Your task to perform on an android device: Check the news Image 0: 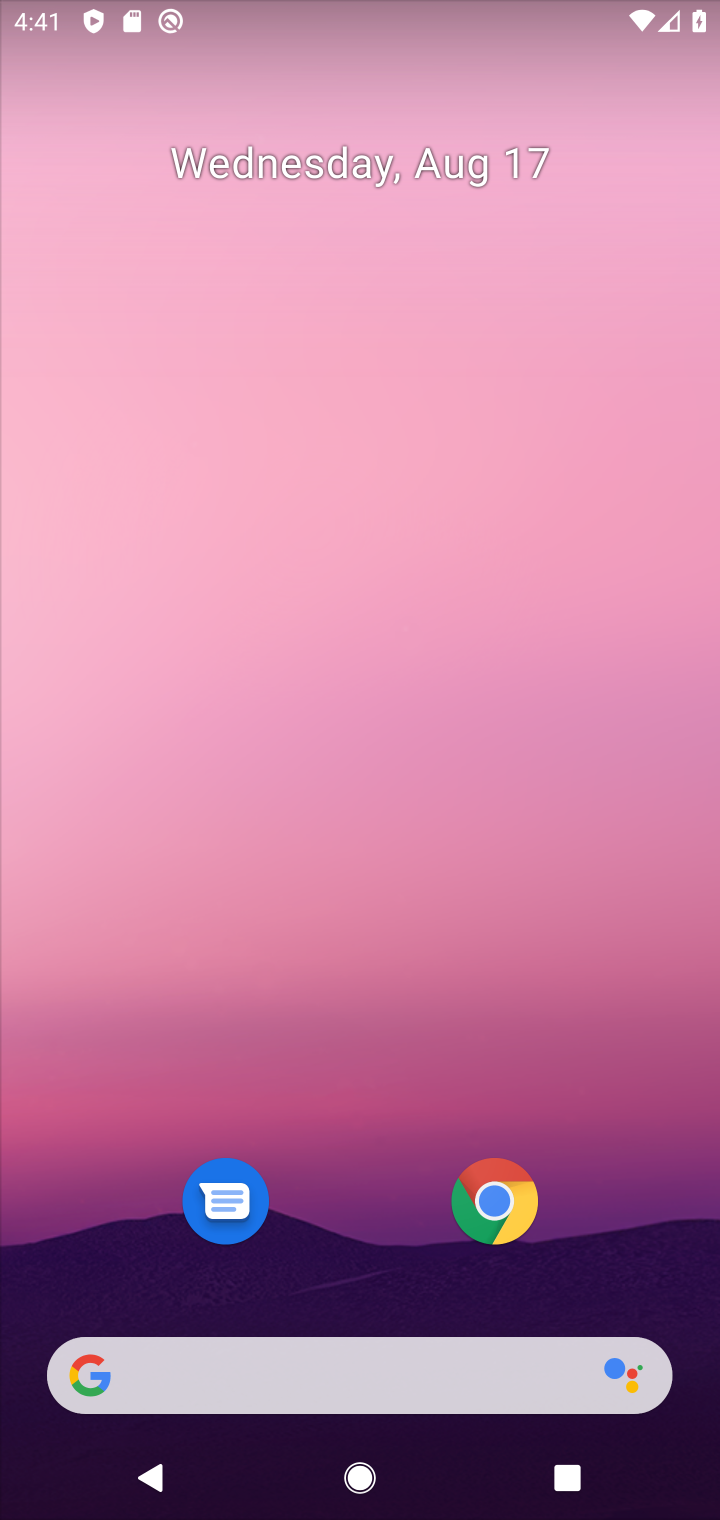
Step 0: click (86, 1369)
Your task to perform on an android device: Check the news Image 1: 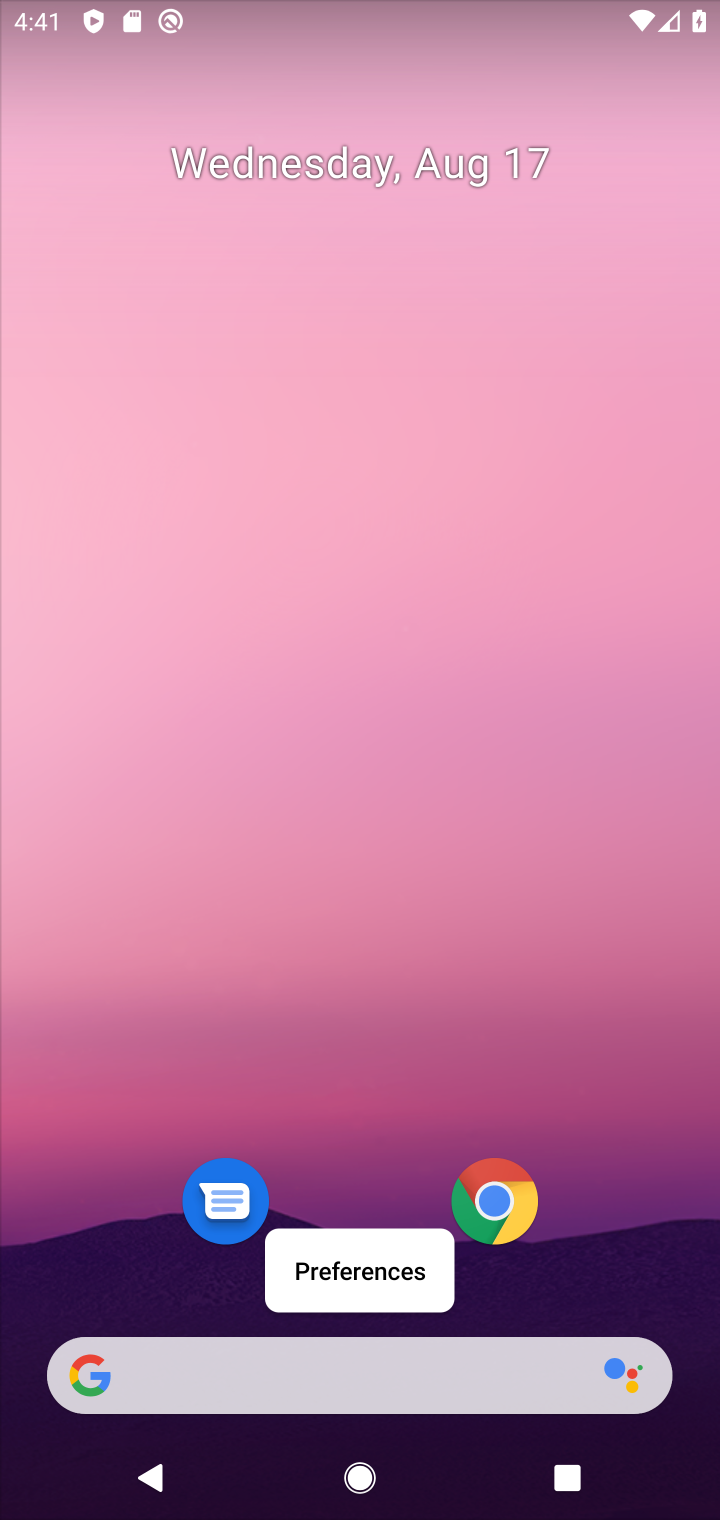
Step 1: click (81, 1389)
Your task to perform on an android device: Check the news Image 2: 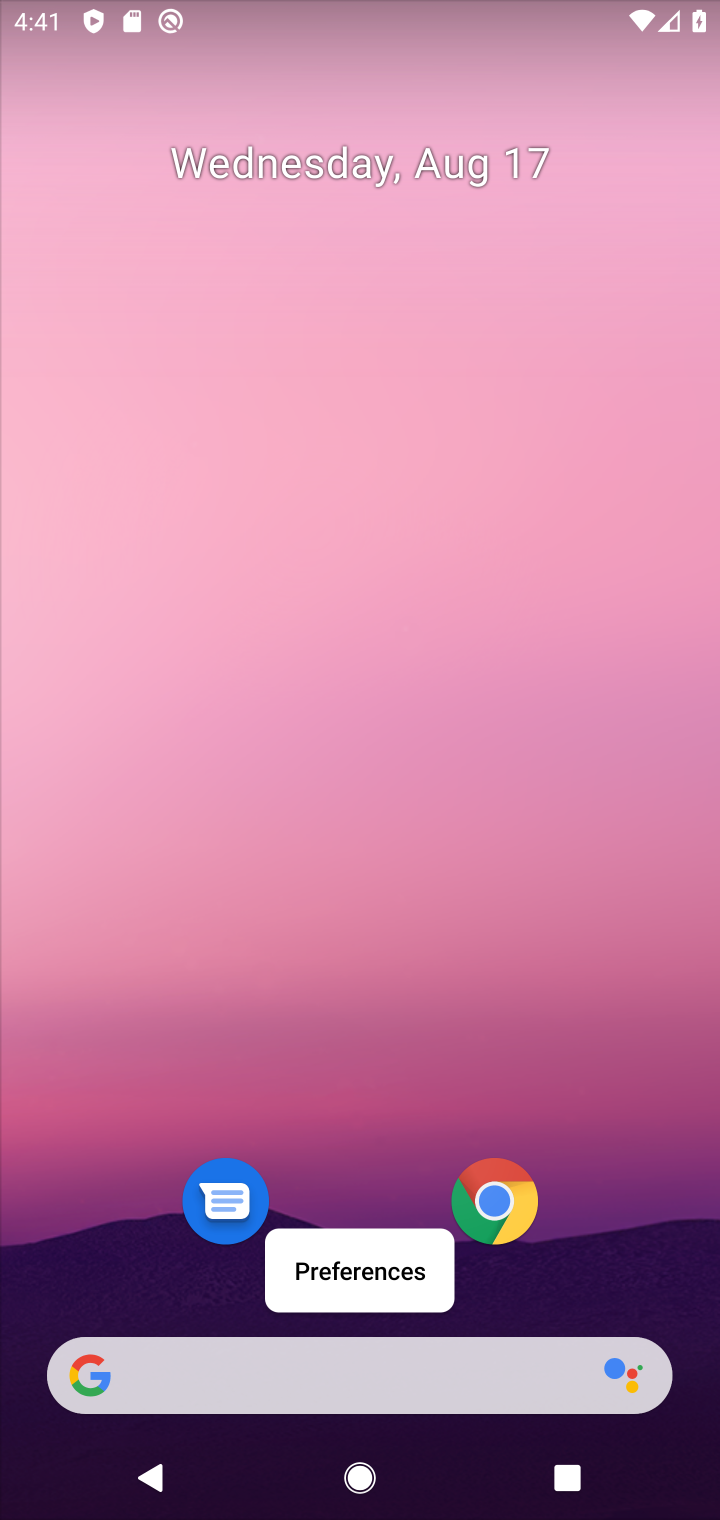
Step 2: click (95, 1374)
Your task to perform on an android device: Check the news Image 3: 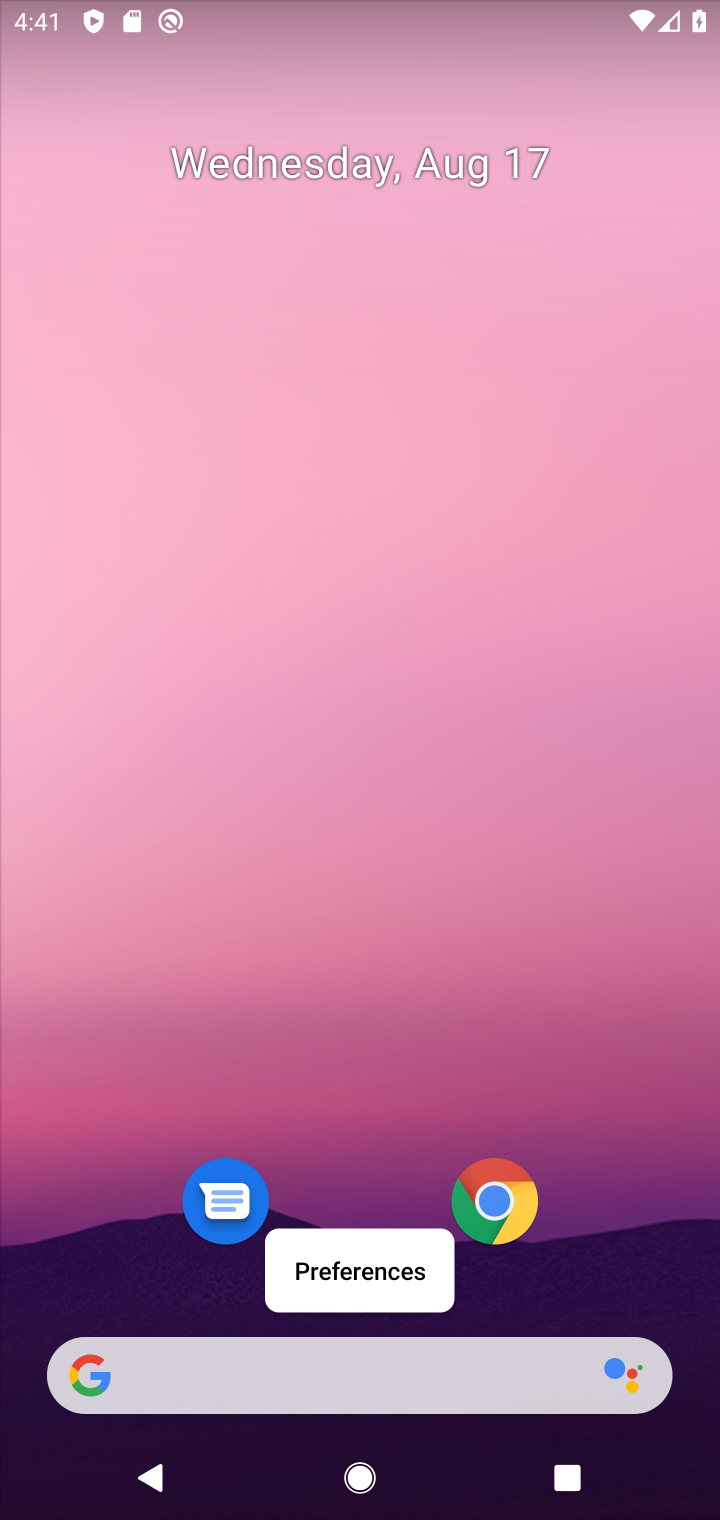
Step 3: click (80, 1385)
Your task to perform on an android device: Check the news Image 4: 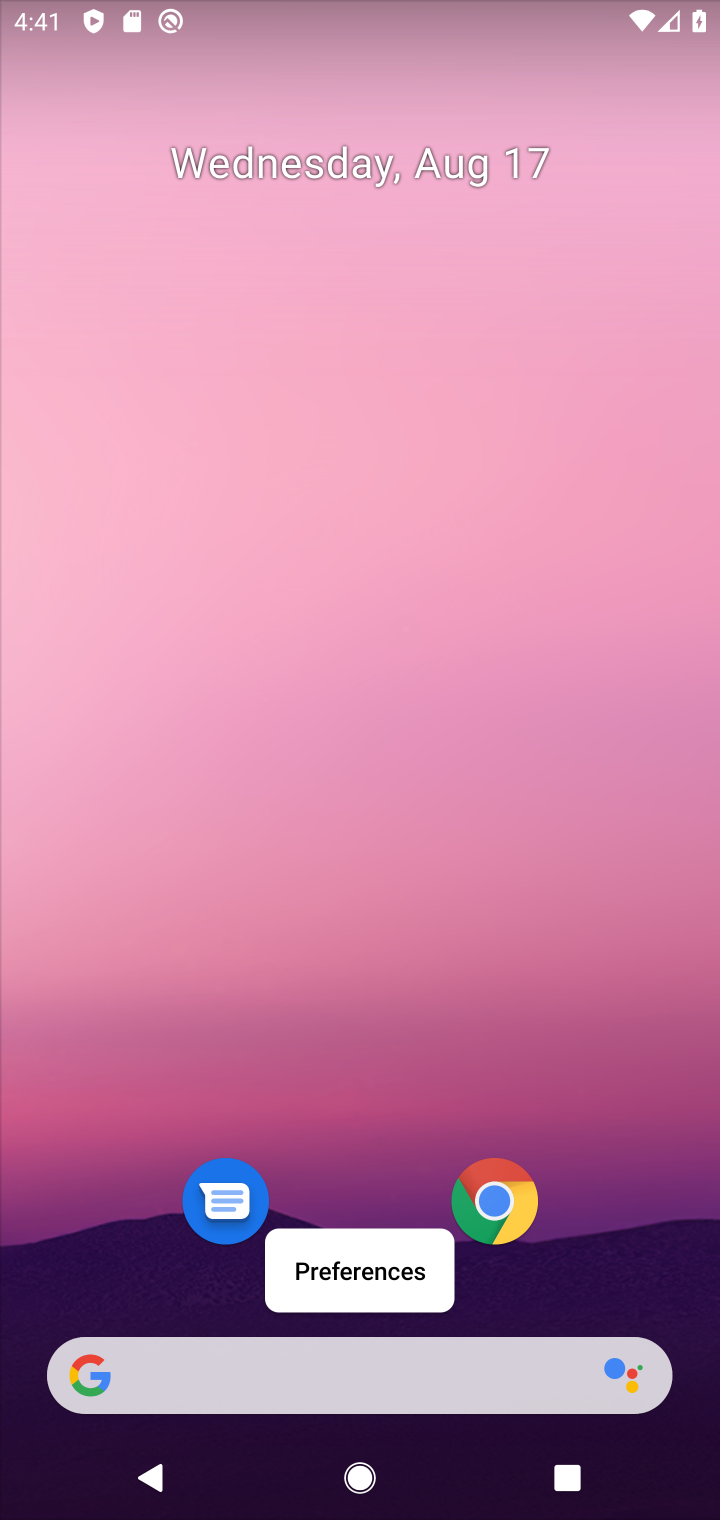
Step 4: click (68, 1379)
Your task to perform on an android device: Check the news Image 5: 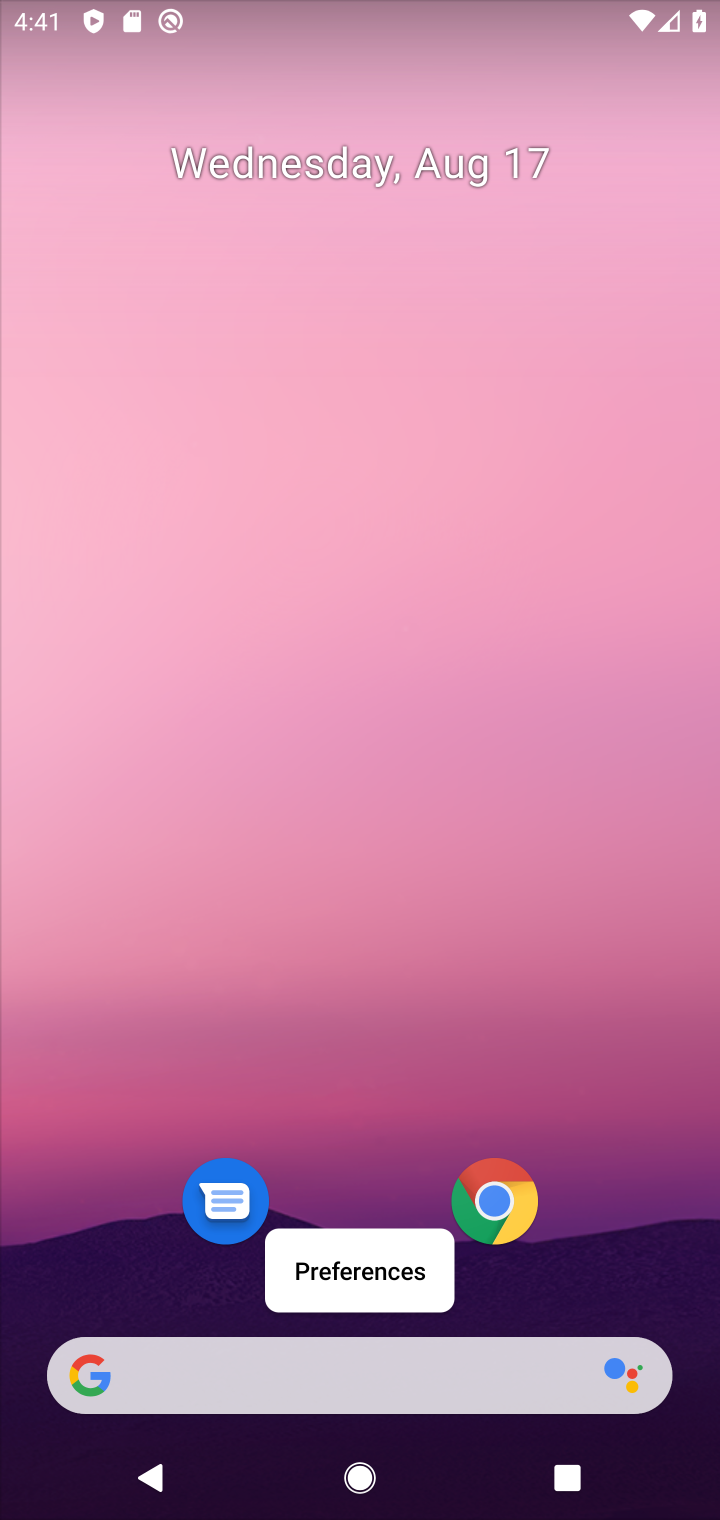
Step 5: click (89, 1373)
Your task to perform on an android device: Check the news Image 6: 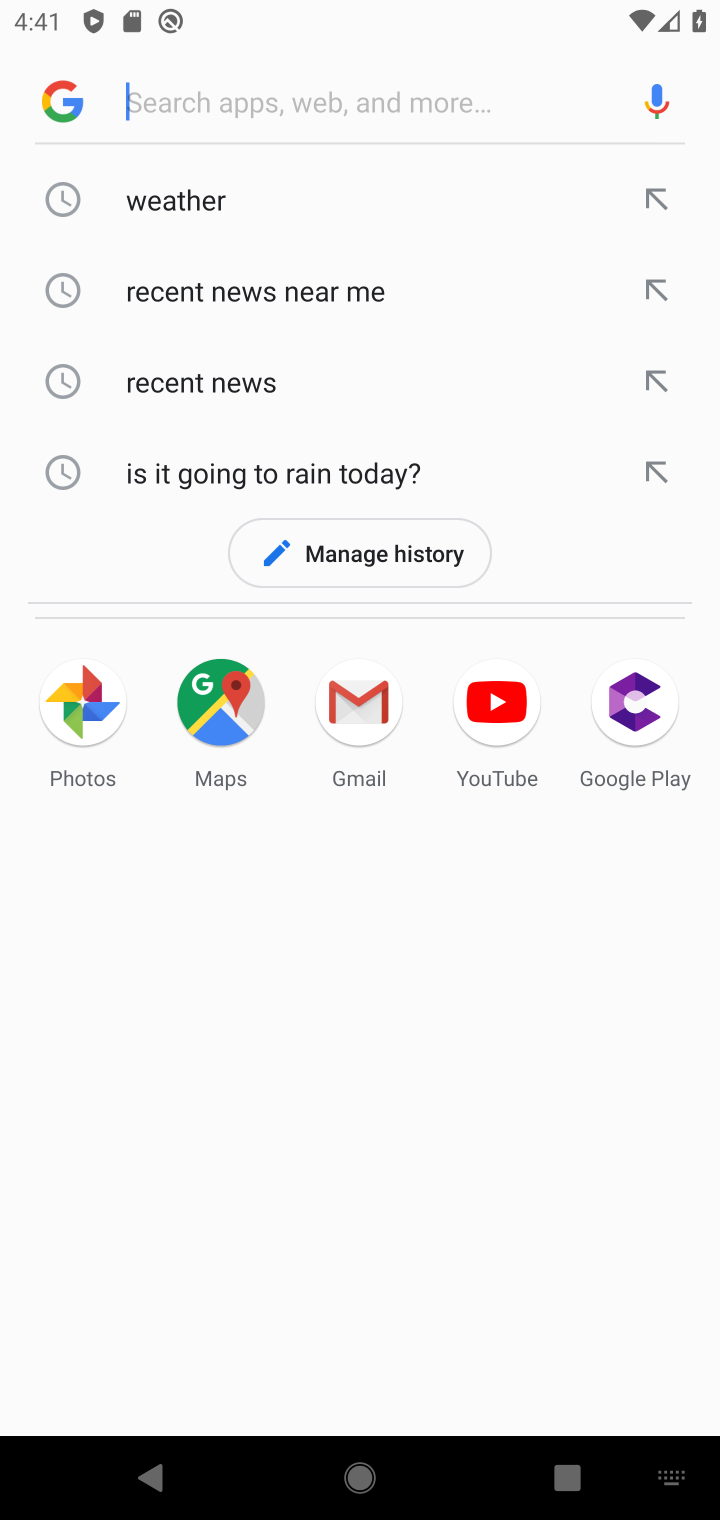
Step 6: type " news"
Your task to perform on an android device: Check the news Image 7: 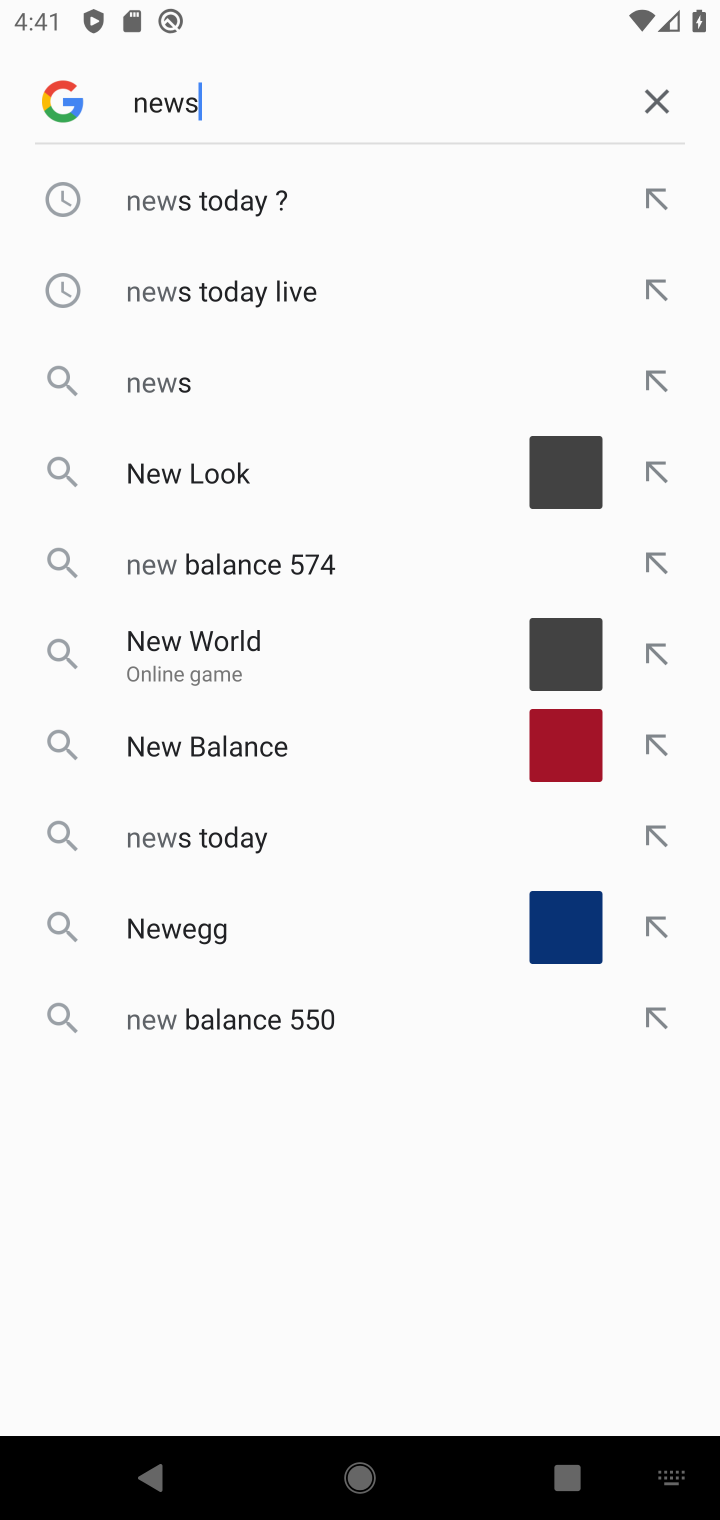
Step 7: press enter
Your task to perform on an android device: Check the news Image 8: 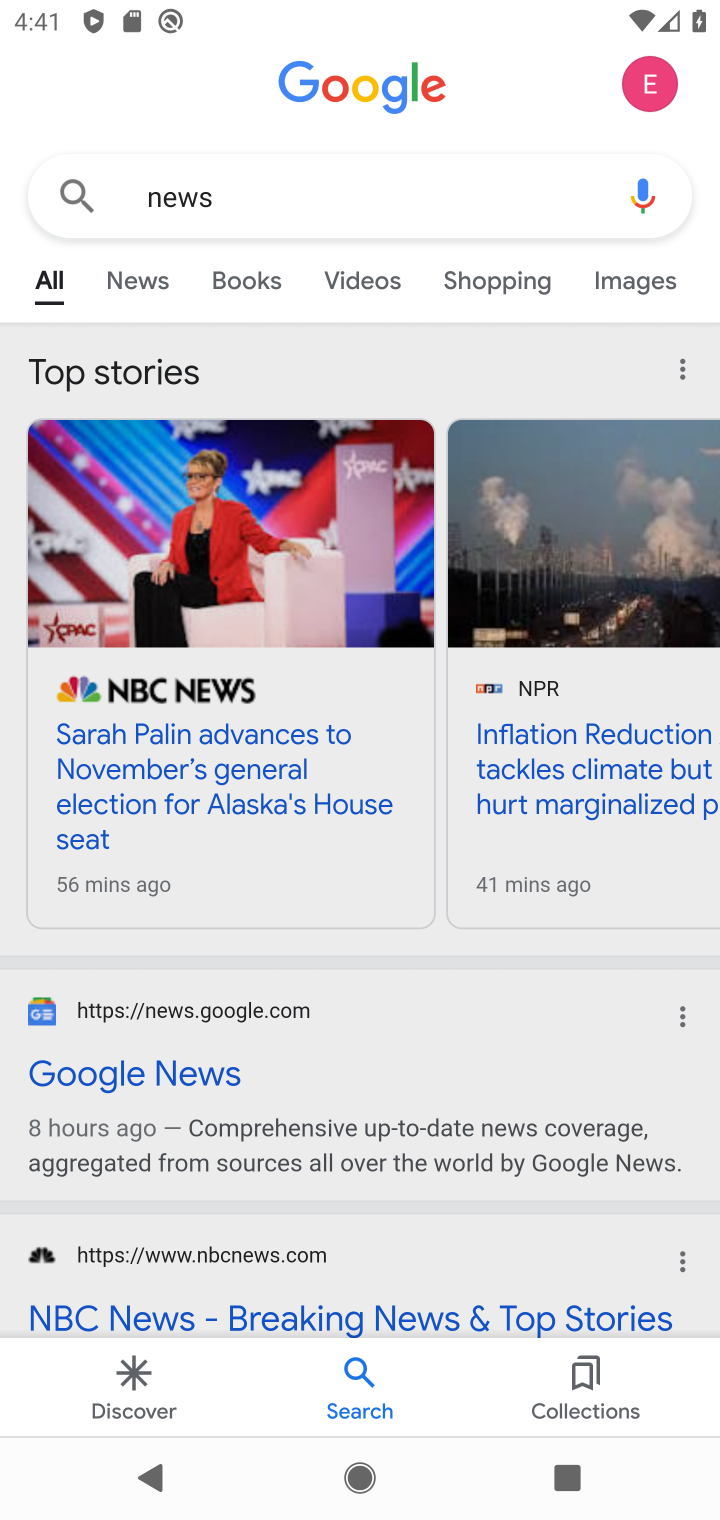
Step 8: task complete